Your task to perform on an android device: Open the calendar and show me this week's events? Image 0: 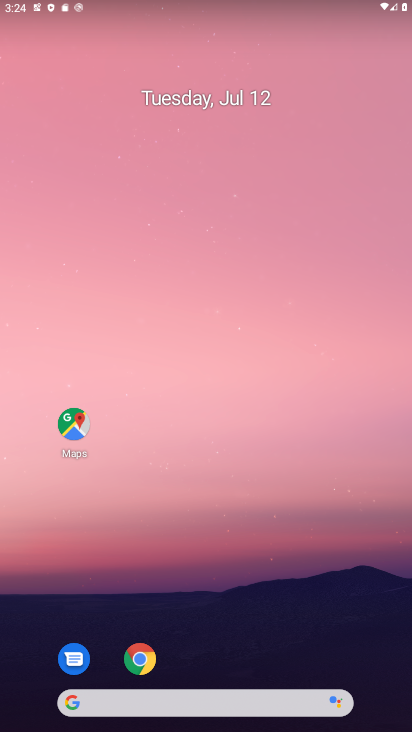
Step 0: drag from (163, 724) to (164, 273)
Your task to perform on an android device: Open the calendar and show me this week's events? Image 1: 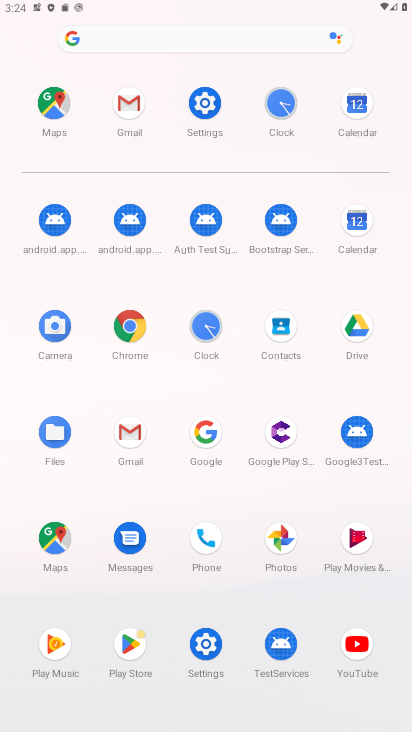
Step 1: click (357, 217)
Your task to perform on an android device: Open the calendar and show me this week's events? Image 2: 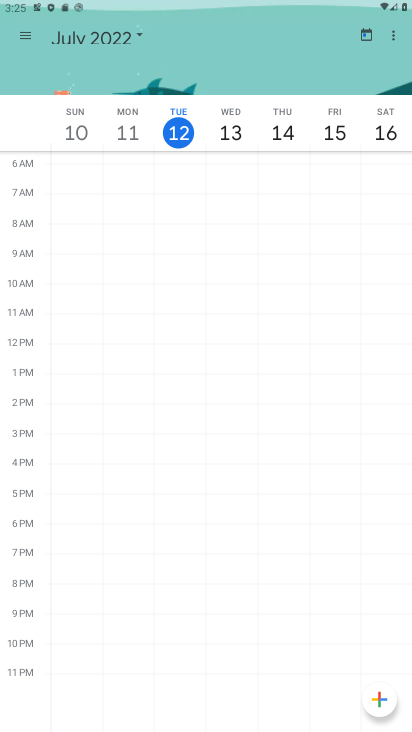
Step 2: click (29, 32)
Your task to perform on an android device: Open the calendar and show me this week's events? Image 3: 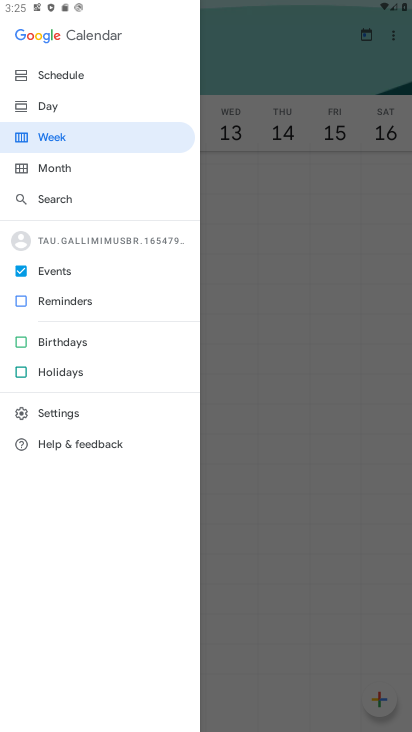
Step 3: click (52, 137)
Your task to perform on an android device: Open the calendar and show me this week's events? Image 4: 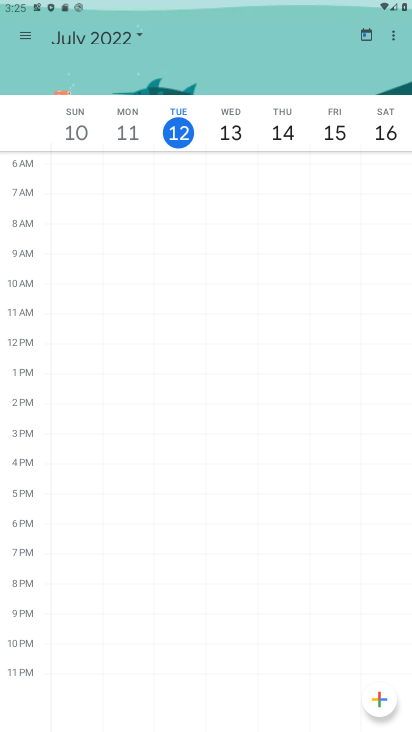
Step 4: task complete